Your task to perform on an android device: Open sound settings Image 0: 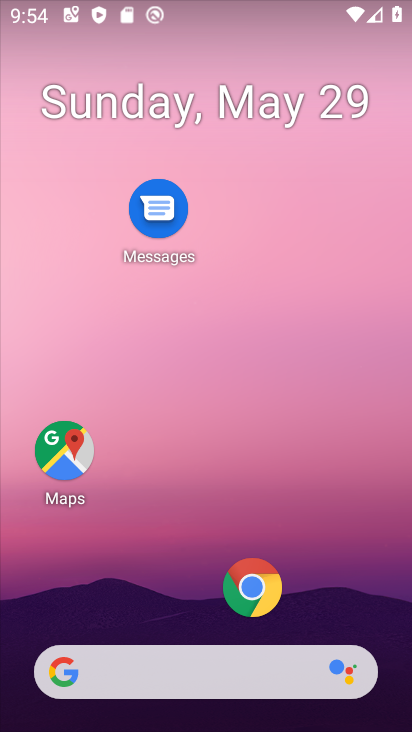
Step 0: drag from (127, 496) to (205, 102)
Your task to perform on an android device: Open sound settings Image 1: 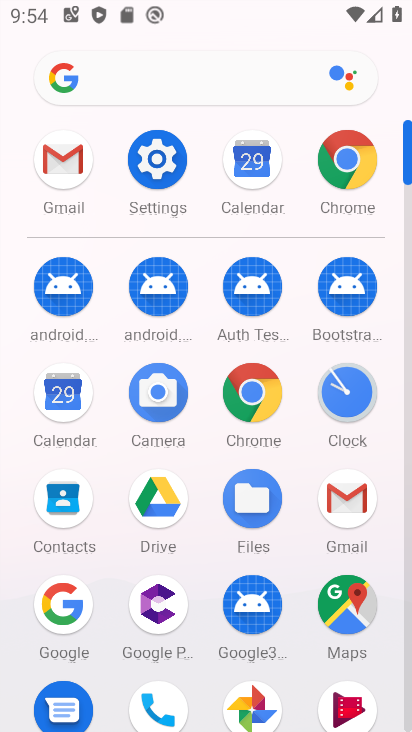
Step 1: click (141, 159)
Your task to perform on an android device: Open sound settings Image 2: 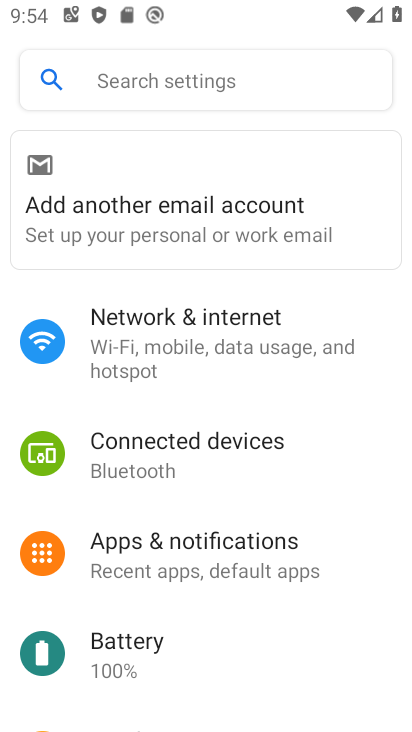
Step 2: drag from (216, 597) to (277, 119)
Your task to perform on an android device: Open sound settings Image 3: 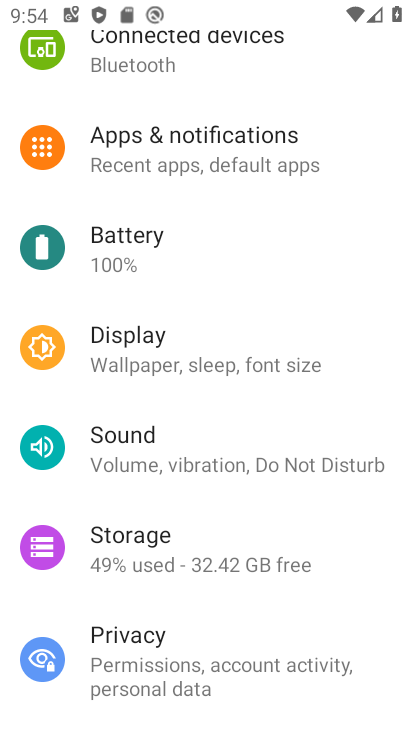
Step 3: click (152, 435)
Your task to perform on an android device: Open sound settings Image 4: 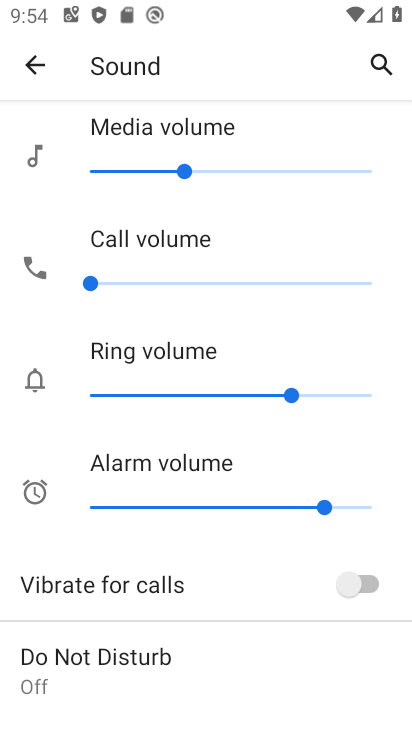
Step 4: task complete